Your task to perform on an android device: Go to display settings Image 0: 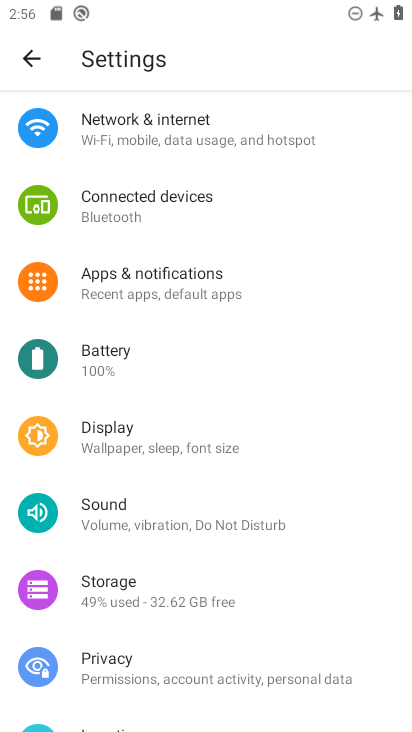
Step 0: click (120, 443)
Your task to perform on an android device: Go to display settings Image 1: 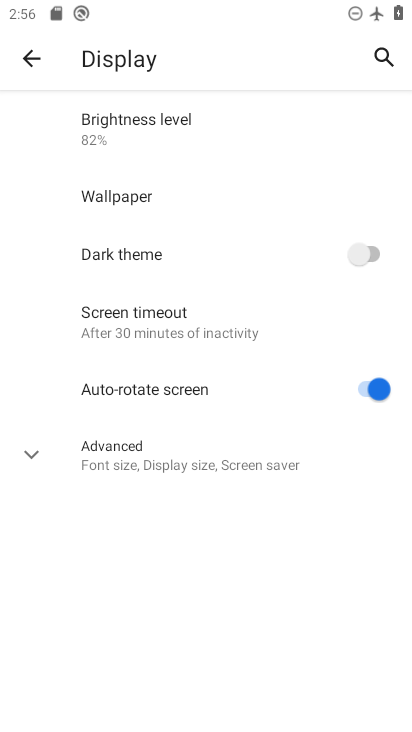
Step 1: click (118, 467)
Your task to perform on an android device: Go to display settings Image 2: 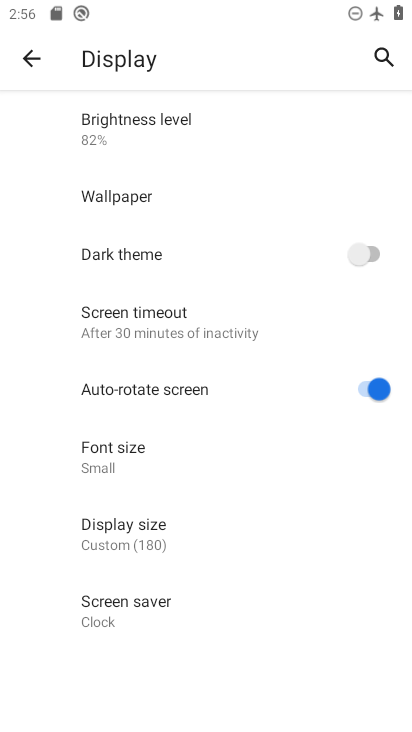
Step 2: task complete